Your task to perform on an android device: toggle airplane mode Image 0: 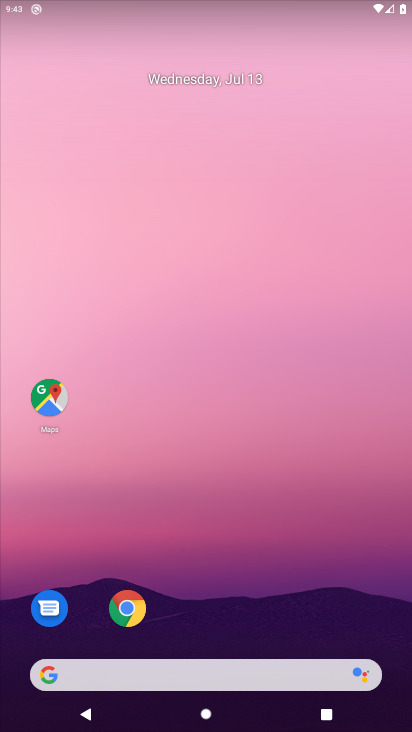
Step 0: drag from (17, 707) to (253, 40)
Your task to perform on an android device: toggle airplane mode Image 1: 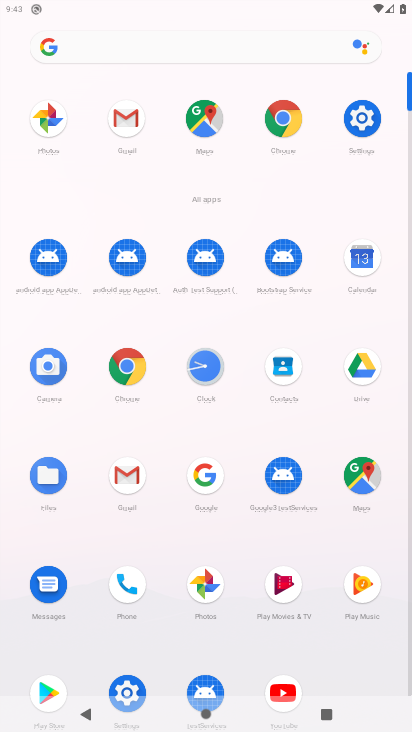
Step 1: click (132, 695)
Your task to perform on an android device: toggle airplane mode Image 2: 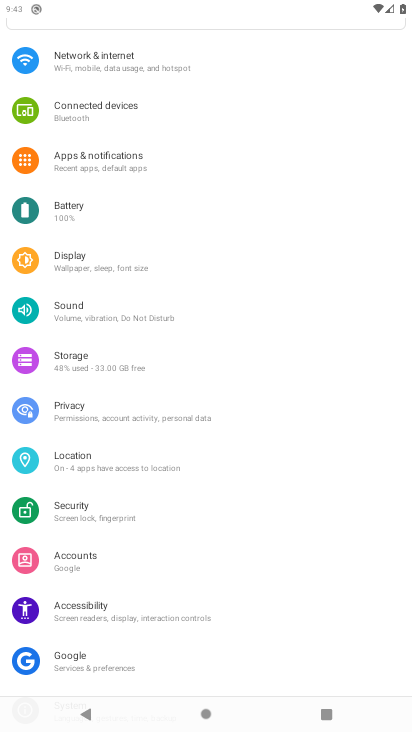
Step 2: click (103, 61)
Your task to perform on an android device: toggle airplane mode Image 3: 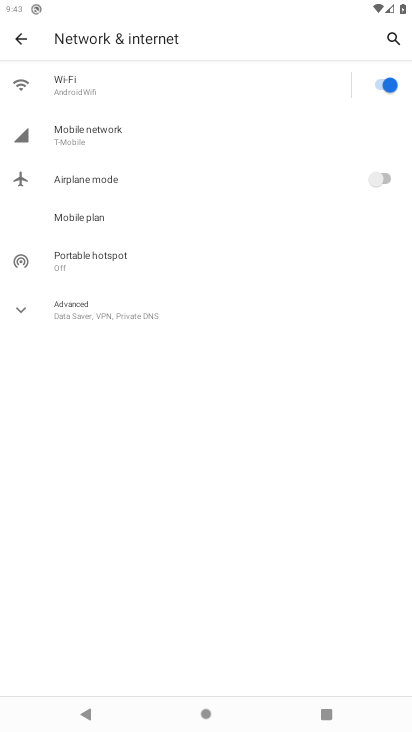
Step 3: click (381, 173)
Your task to perform on an android device: toggle airplane mode Image 4: 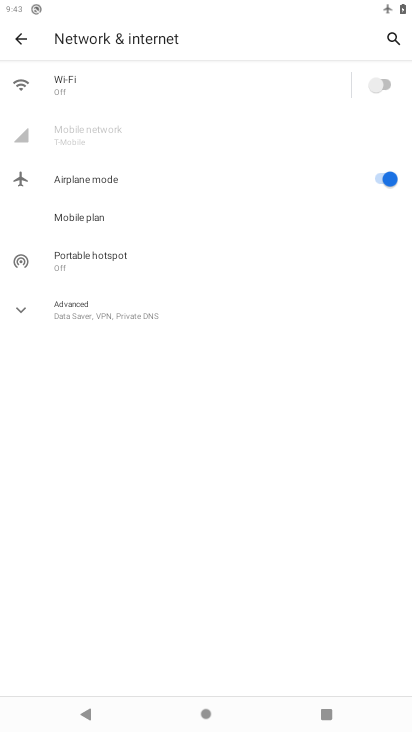
Step 4: task complete